Your task to perform on an android device: turn on bluetooth scan Image 0: 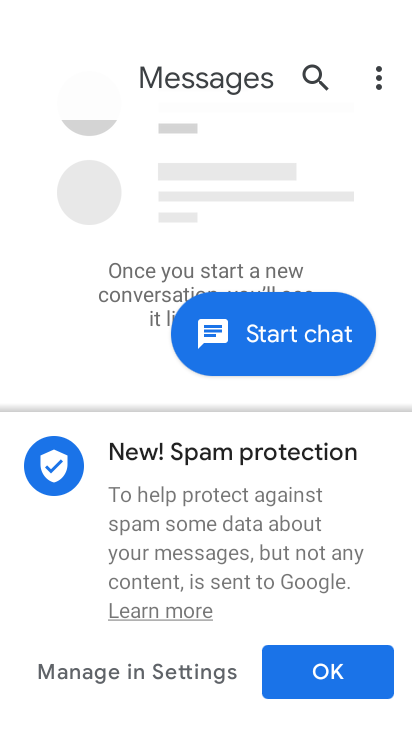
Step 0: press back button
Your task to perform on an android device: turn on bluetooth scan Image 1: 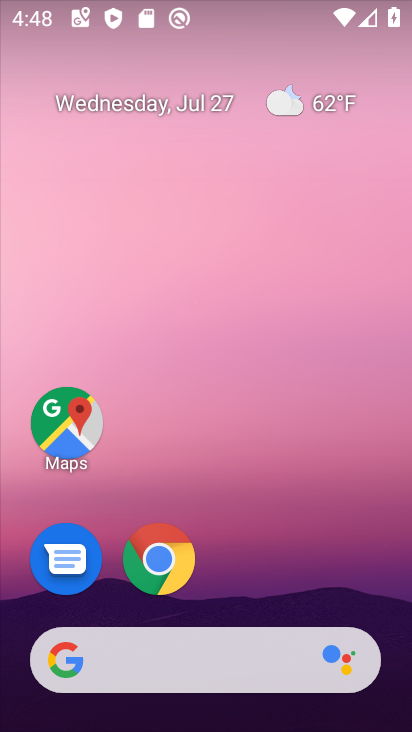
Step 1: drag from (242, 605) to (257, 7)
Your task to perform on an android device: turn on bluetooth scan Image 2: 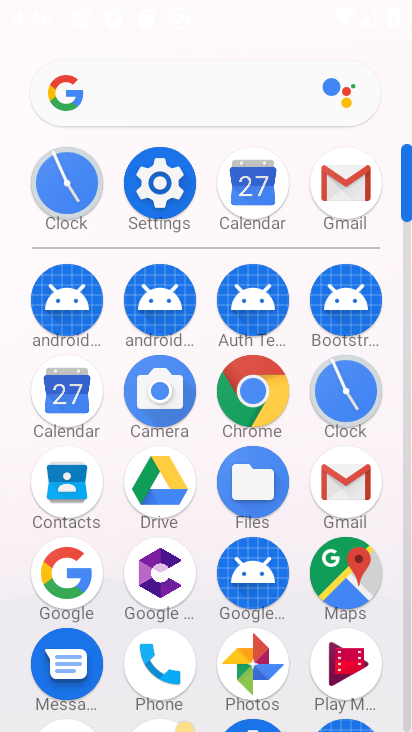
Step 2: click (157, 186)
Your task to perform on an android device: turn on bluetooth scan Image 3: 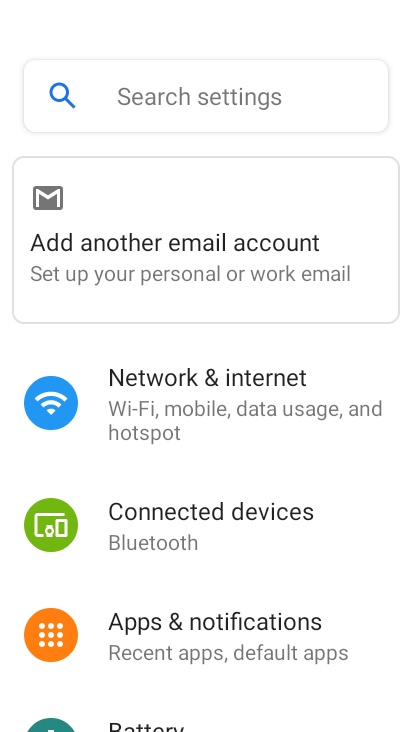
Step 3: click (200, 534)
Your task to perform on an android device: turn on bluetooth scan Image 4: 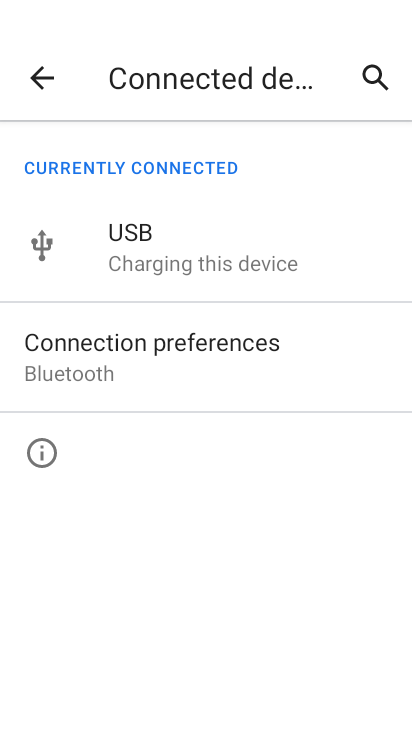
Step 4: click (158, 374)
Your task to perform on an android device: turn on bluetooth scan Image 5: 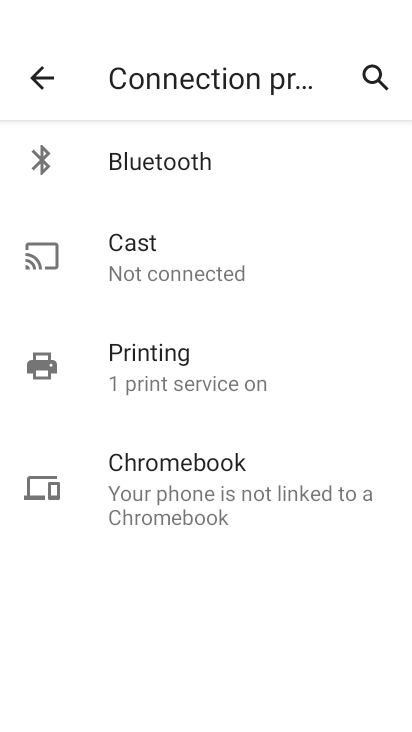
Step 5: click (194, 178)
Your task to perform on an android device: turn on bluetooth scan Image 6: 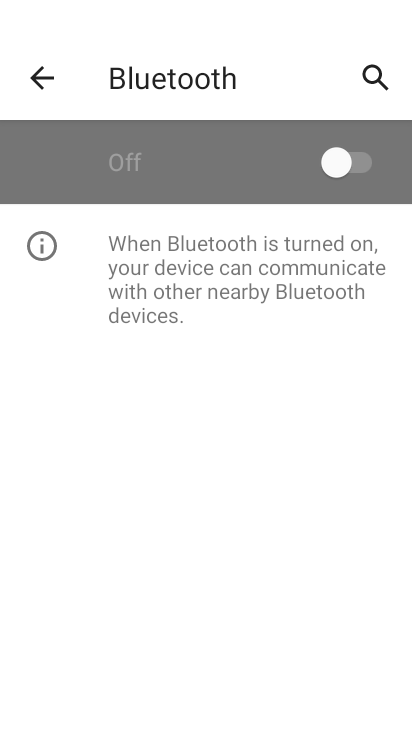
Step 6: task complete